Your task to perform on an android device: Open settings Image 0: 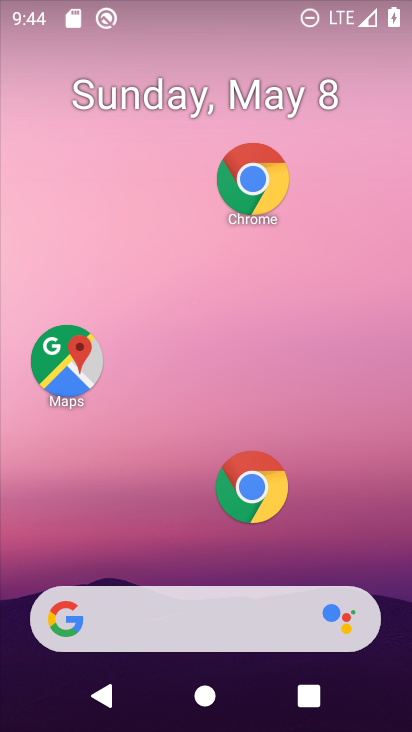
Step 0: drag from (300, 520) to (307, 64)
Your task to perform on an android device: Open settings Image 1: 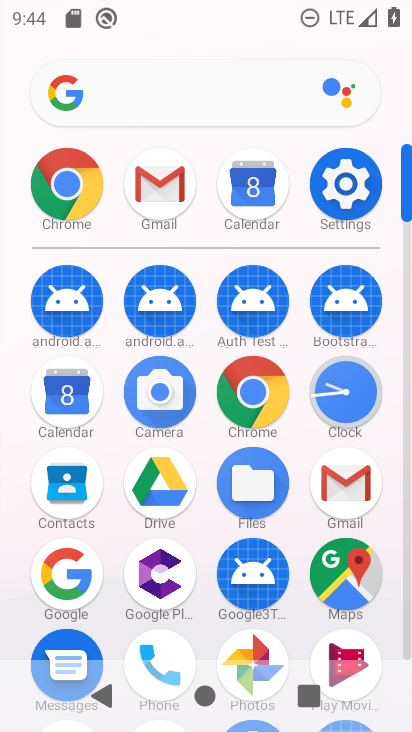
Step 1: click (342, 188)
Your task to perform on an android device: Open settings Image 2: 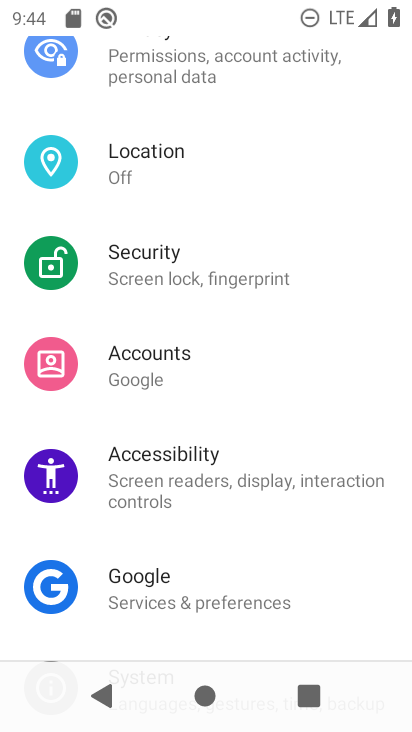
Step 2: task complete